Your task to perform on an android device: install app "Expedia: Hotels, Flights & Car" Image 0: 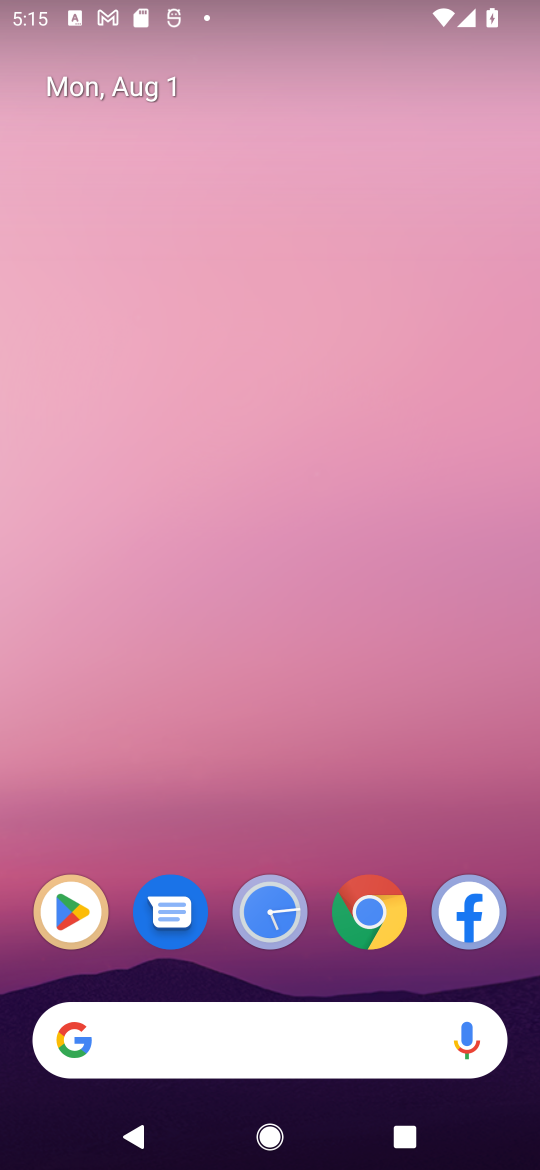
Step 0: click (66, 917)
Your task to perform on an android device: install app "Expedia: Hotels, Flights & Car" Image 1: 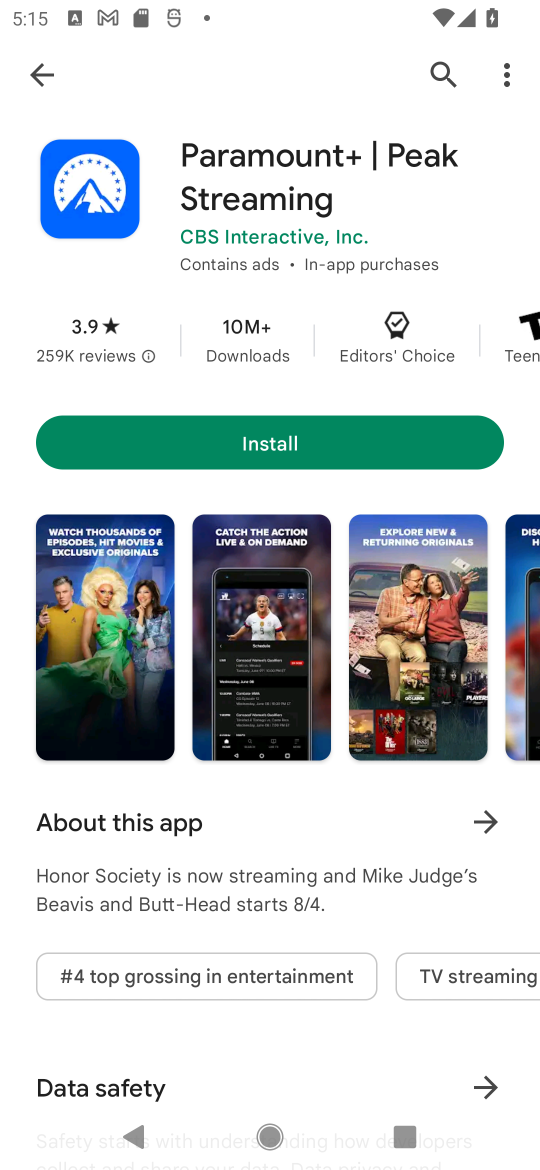
Step 1: click (450, 73)
Your task to perform on an android device: install app "Expedia: Hotels, Flights & Car" Image 2: 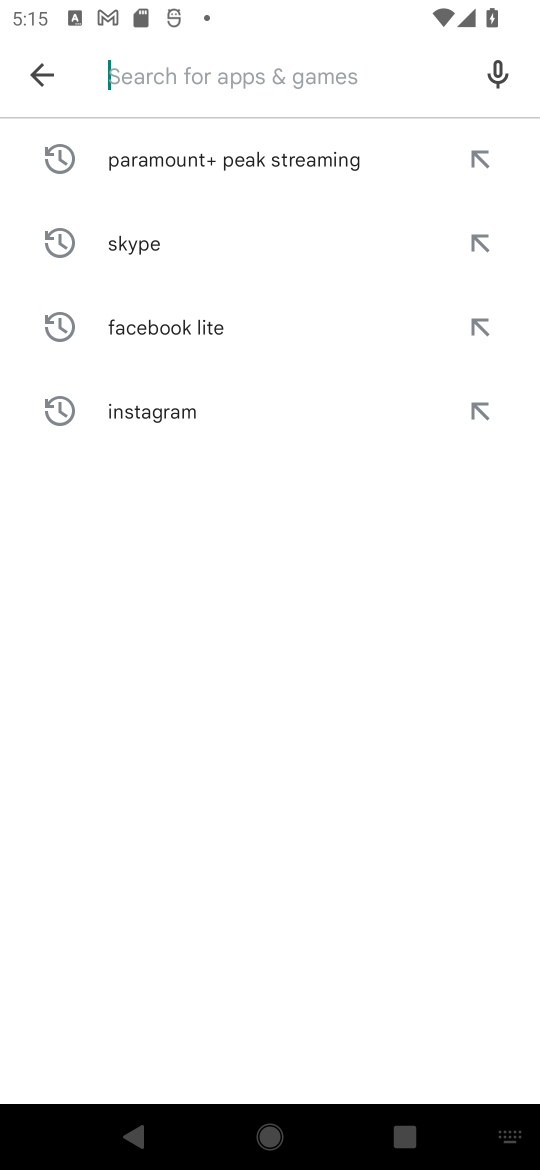
Step 2: type "Expedia: Hotels, Flights & Car"
Your task to perform on an android device: install app "Expedia: Hotels, Flights & Car" Image 3: 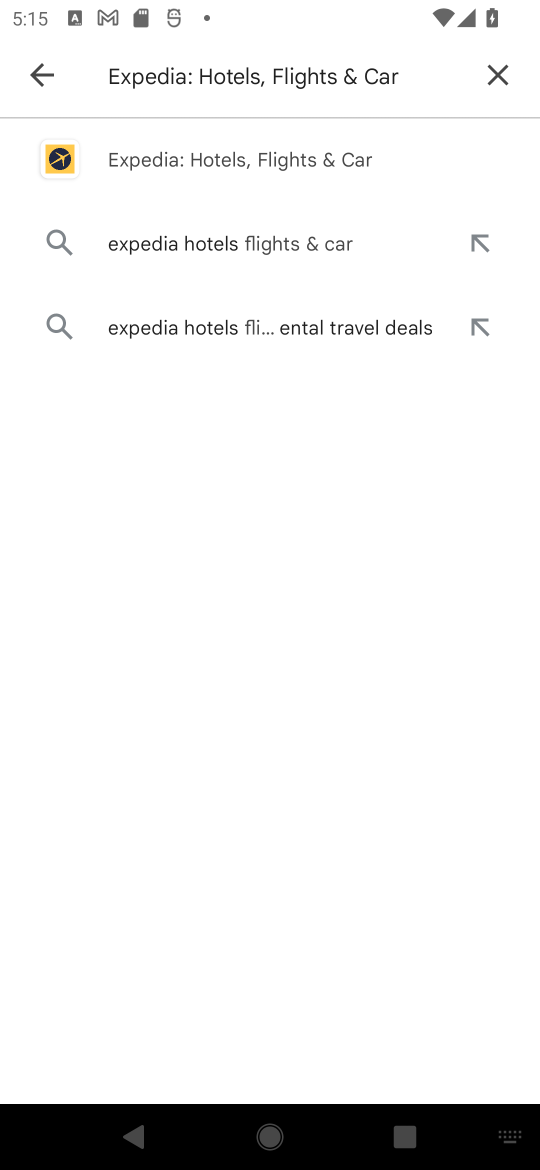
Step 3: click (171, 161)
Your task to perform on an android device: install app "Expedia: Hotels, Flights & Car" Image 4: 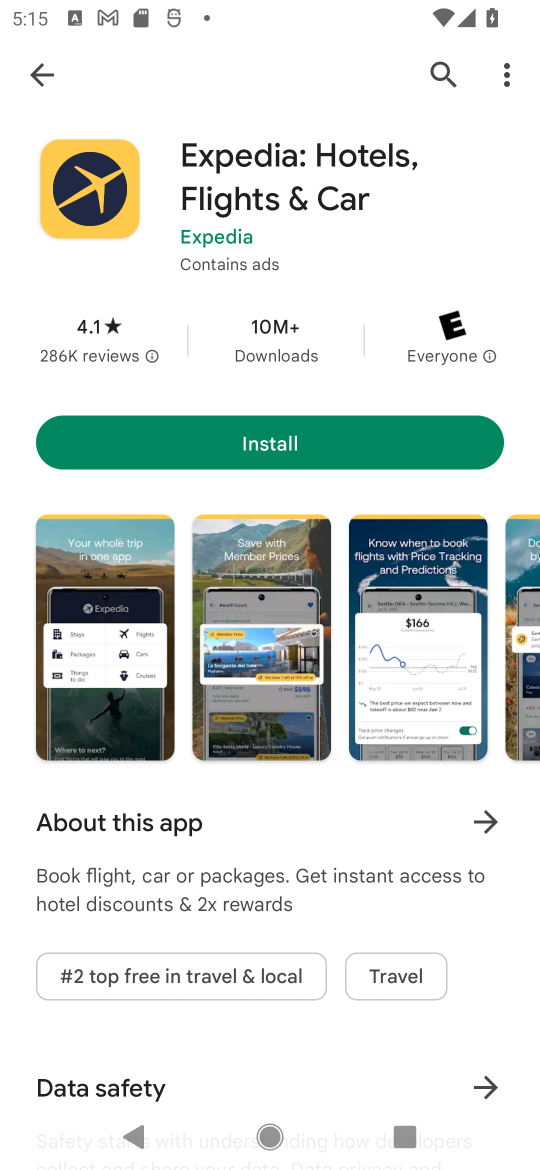
Step 4: click (237, 445)
Your task to perform on an android device: install app "Expedia: Hotels, Flights & Car" Image 5: 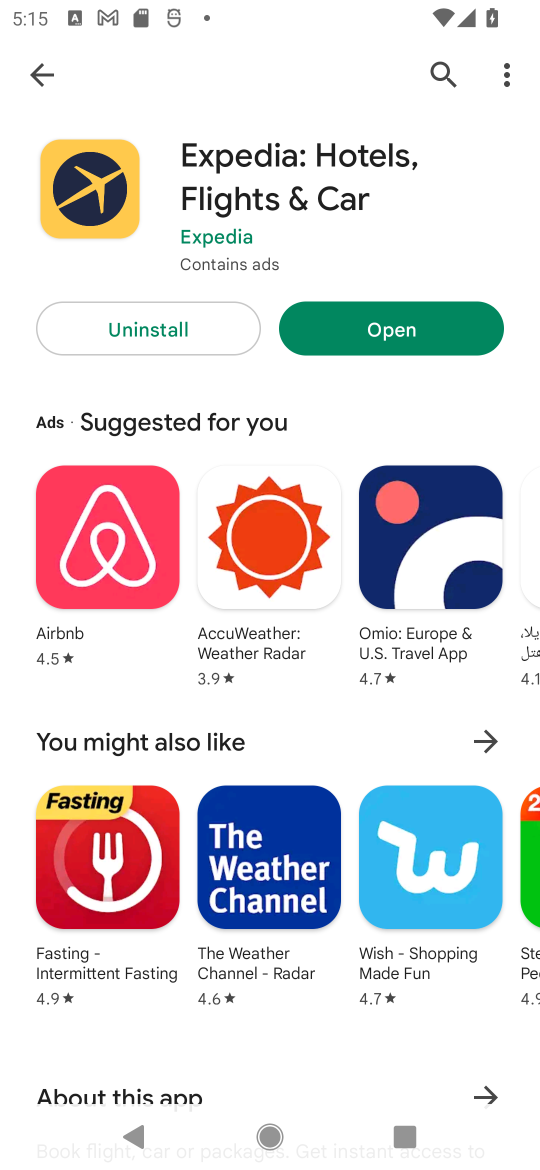
Step 5: task complete